Your task to perform on an android device: open the mobile data screen to see how much data has been used Image 0: 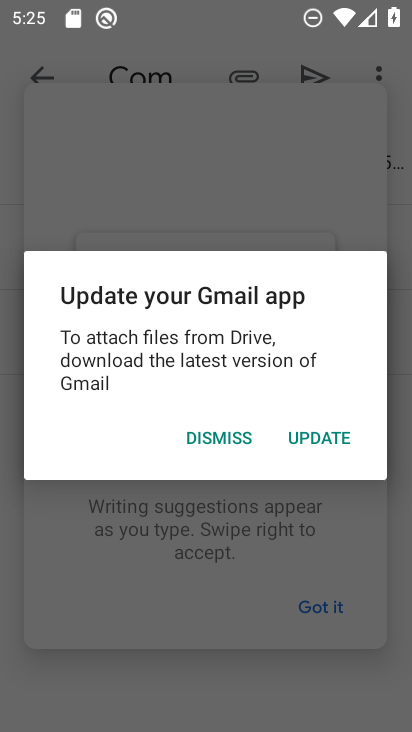
Step 0: click (200, 436)
Your task to perform on an android device: open the mobile data screen to see how much data has been used Image 1: 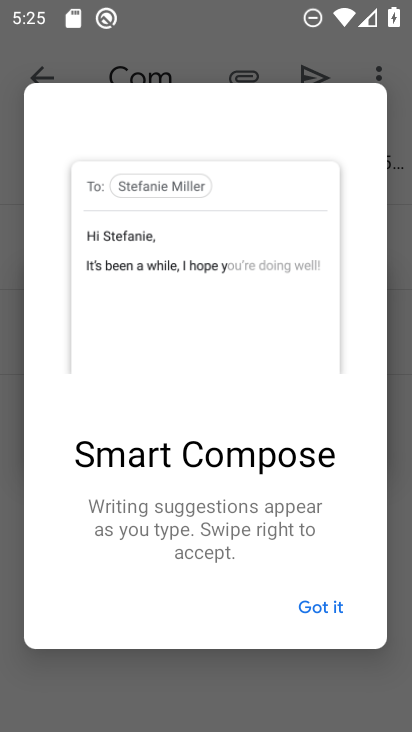
Step 1: click (320, 611)
Your task to perform on an android device: open the mobile data screen to see how much data has been used Image 2: 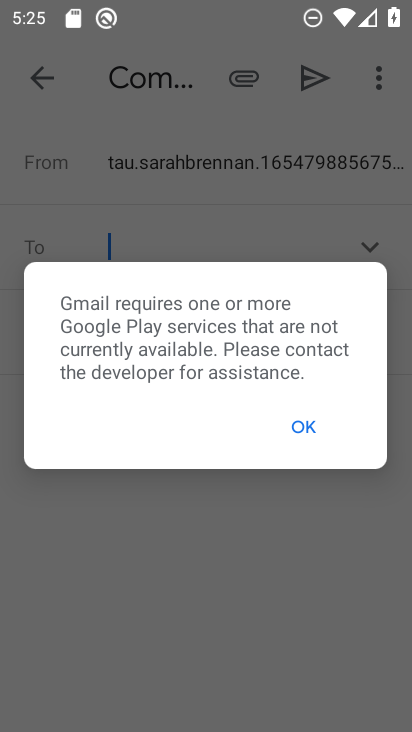
Step 2: click (305, 429)
Your task to perform on an android device: open the mobile data screen to see how much data has been used Image 3: 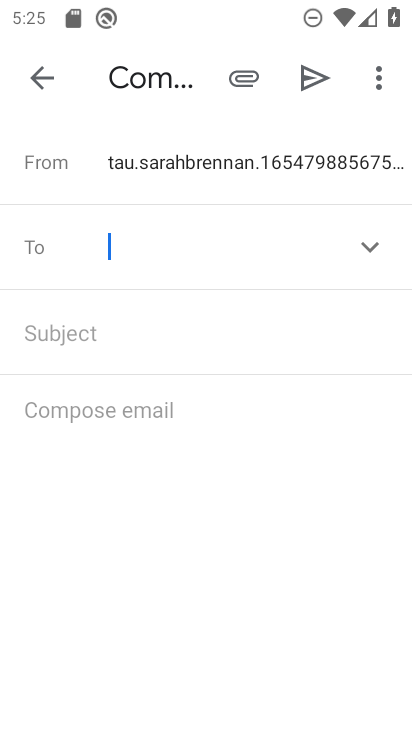
Step 3: press back button
Your task to perform on an android device: open the mobile data screen to see how much data has been used Image 4: 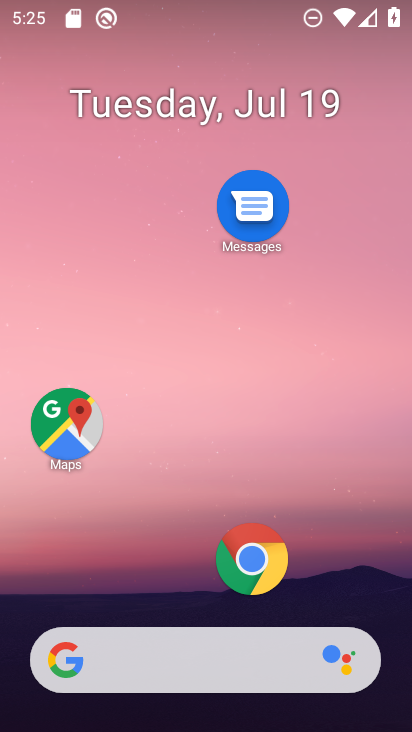
Step 4: drag from (111, 554) to (190, 19)
Your task to perform on an android device: open the mobile data screen to see how much data has been used Image 5: 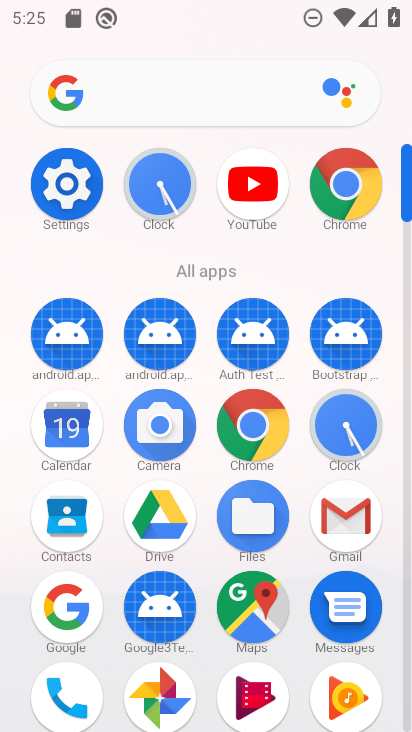
Step 5: click (71, 201)
Your task to perform on an android device: open the mobile data screen to see how much data has been used Image 6: 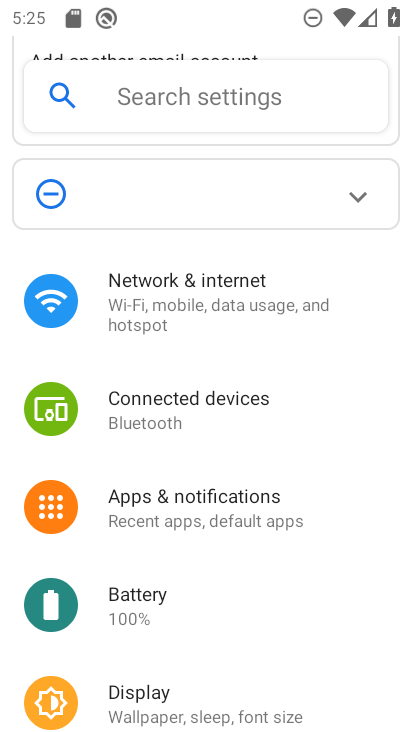
Step 6: click (212, 304)
Your task to perform on an android device: open the mobile data screen to see how much data has been used Image 7: 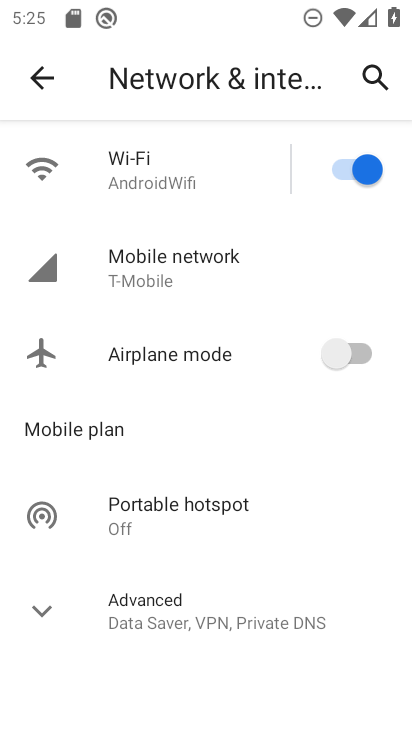
Step 7: click (194, 275)
Your task to perform on an android device: open the mobile data screen to see how much data has been used Image 8: 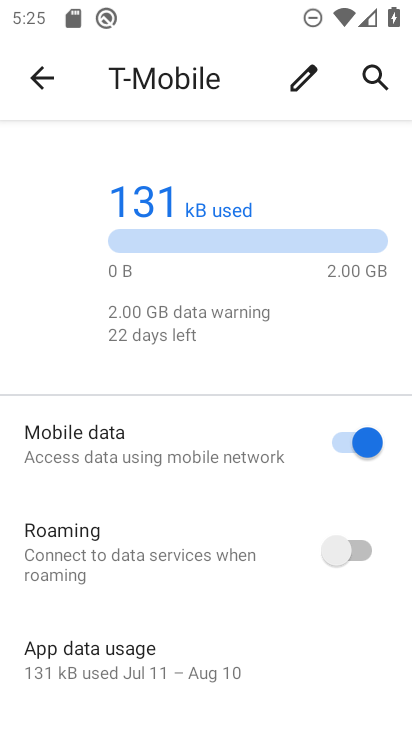
Step 8: click (108, 664)
Your task to perform on an android device: open the mobile data screen to see how much data has been used Image 9: 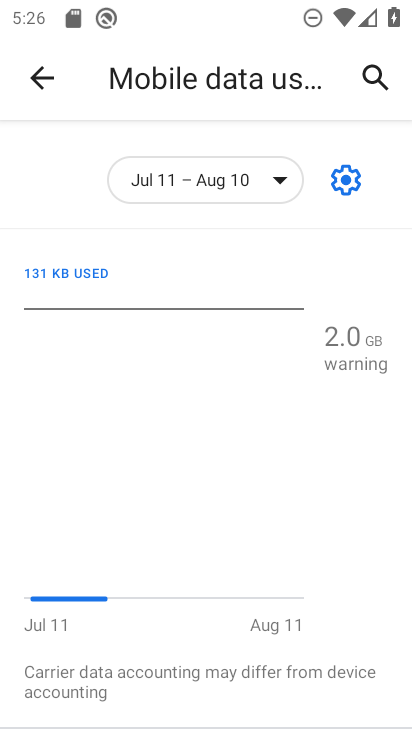
Step 9: task complete